Your task to perform on an android device: turn on translation in the chrome app Image 0: 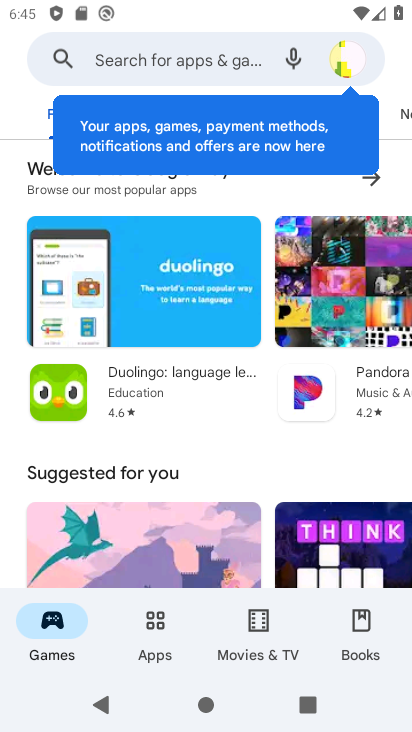
Step 0: press home button
Your task to perform on an android device: turn on translation in the chrome app Image 1: 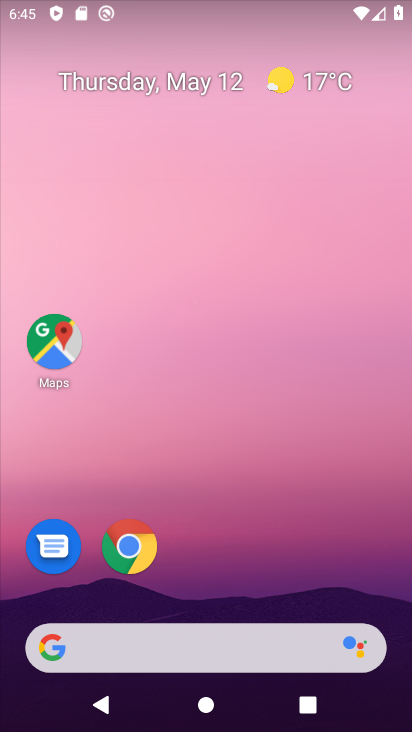
Step 1: click (131, 550)
Your task to perform on an android device: turn on translation in the chrome app Image 2: 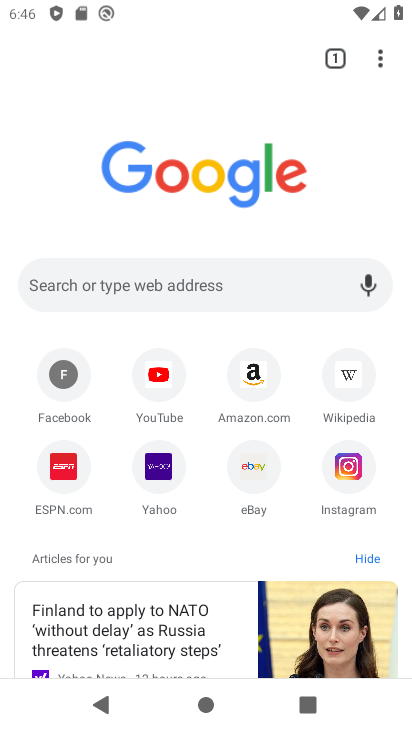
Step 2: click (381, 65)
Your task to perform on an android device: turn on translation in the chrome app Image 3: 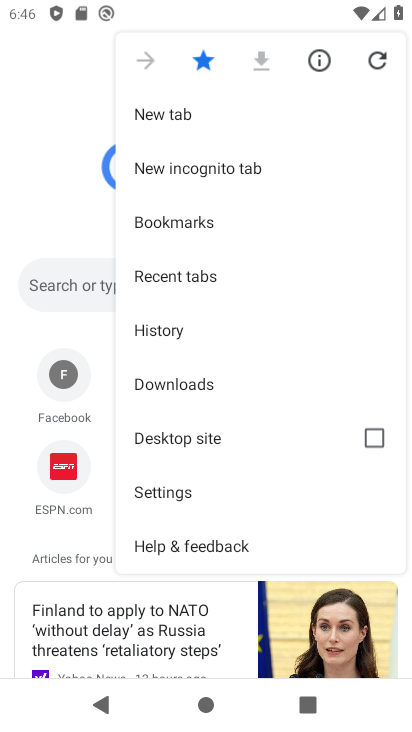
Step 3: click (173, 490)
Your task to perform on an android device: turn on translation in the chrome app Image 4: 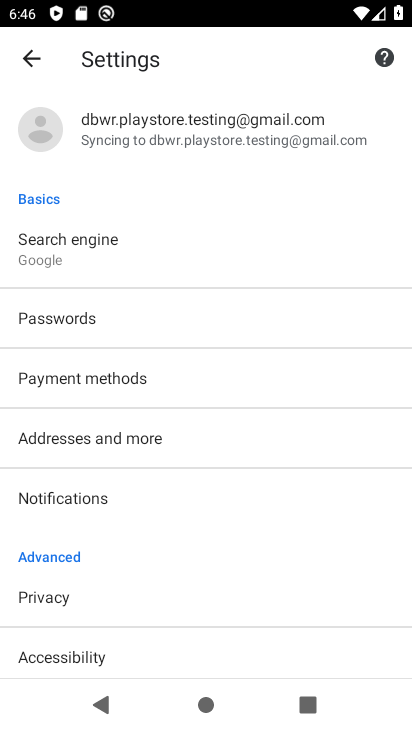
Step 4: drag from (130, 562) to (79, 330)
Your task to perform on an android device: turn on translation in the chrome app Image 5: 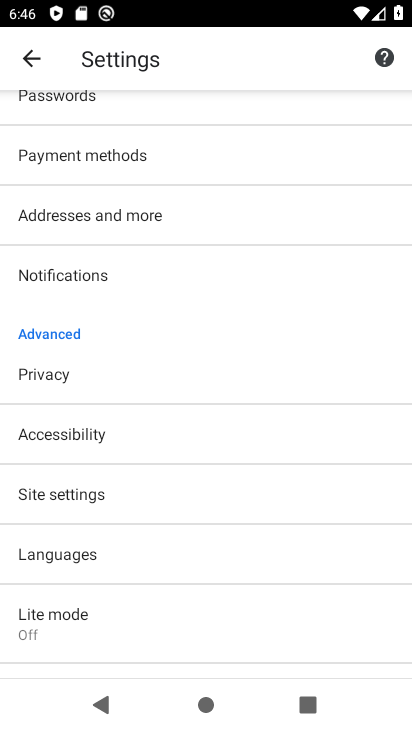
Step 5: click (61, 556)
Your task to perform on an android device: turn on translation in the chrome app Image 6: 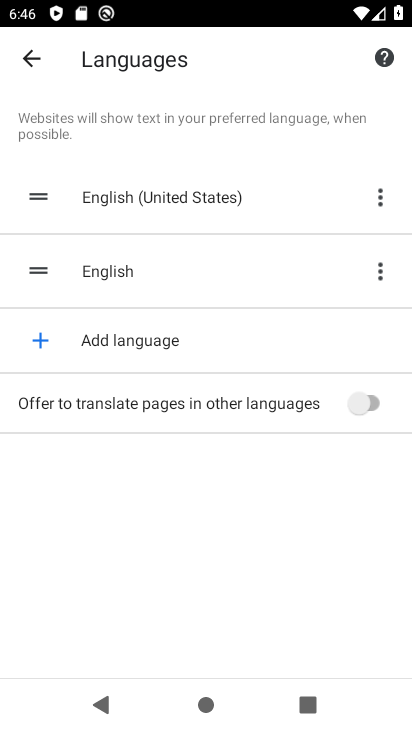
Step 6: click (351, 405)
Your task to perform on an android device: turn on translation in the chrome app Image 7: 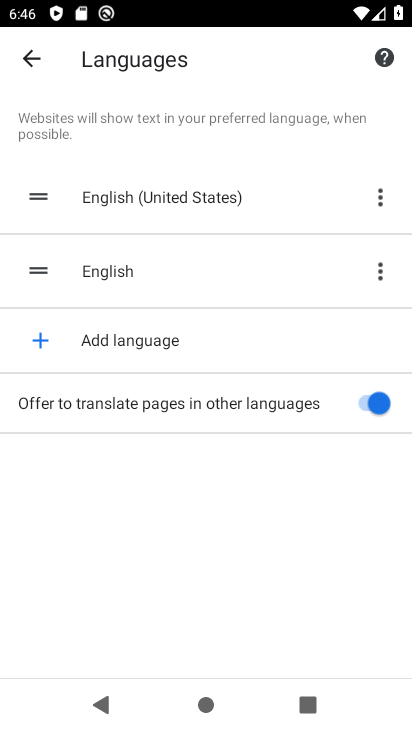
Step 7: task complete